Your task to perform on an android device: turn on bluetooth scan Image 0: 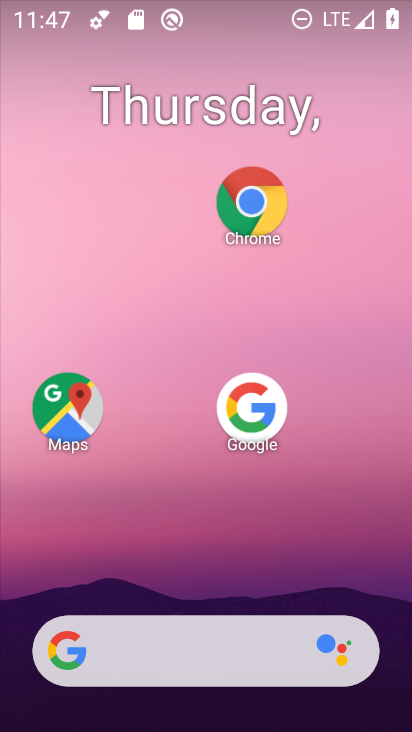
Step 0: drag from (227, 588) to (329, 48)
Your task to perform on an android device: turn on bluetooth scan Image 1: 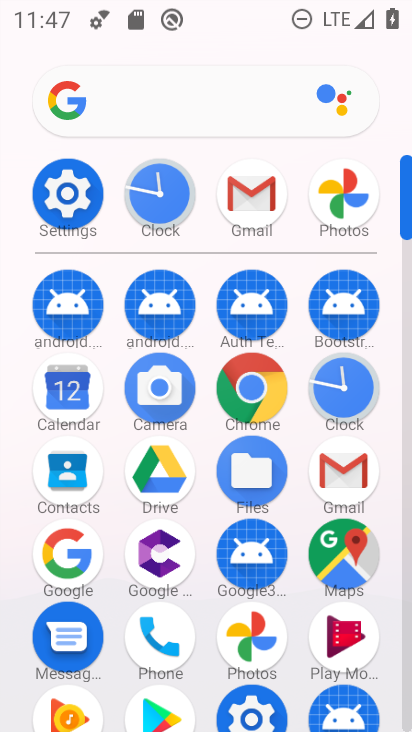
Step 1: click (55, 204)
Your task to perform on an android device: turn on bluetooth scan Image 2: 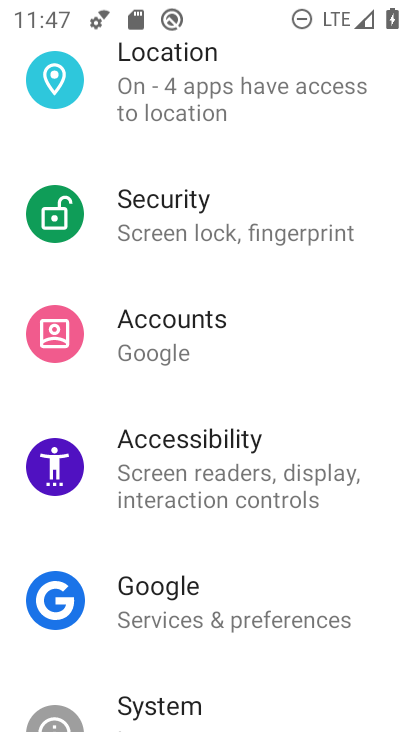
Step 2: drag from (117, 190) to (79, 665)
Your task to perform on an android device: turn on bluetooth scan Image 3: 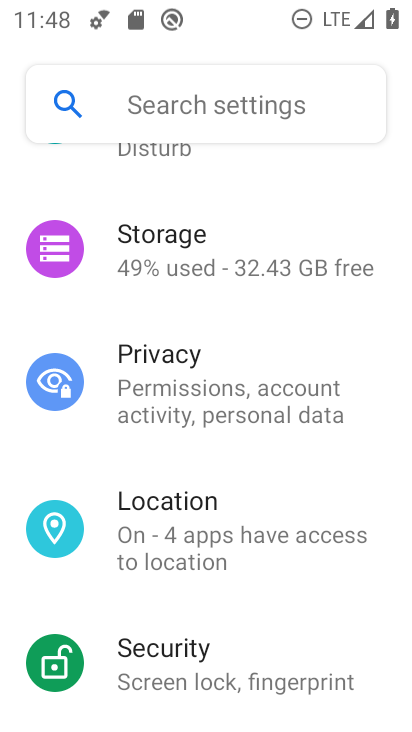
Step 3: drag from (196, 303) to (196, 730)
Your task to perform on an android device: turn on bluetooth scan Image 4: 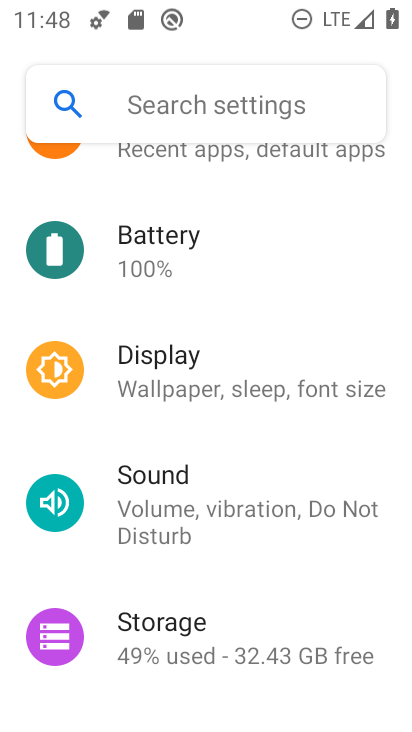
Step 4: drag from (172, 604) to (162, 99)
Your task to perform on an android device: turn on bluetooth scan Image 5: 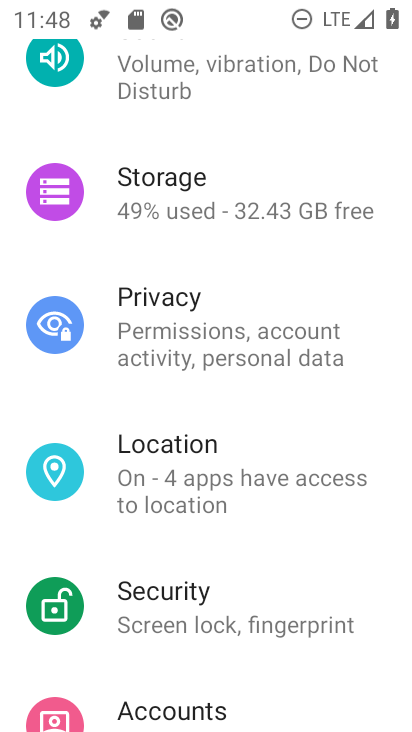
Step 5: click (199, 442)
Your task to perform on an android device: turn on bluetooth scan Image 6: 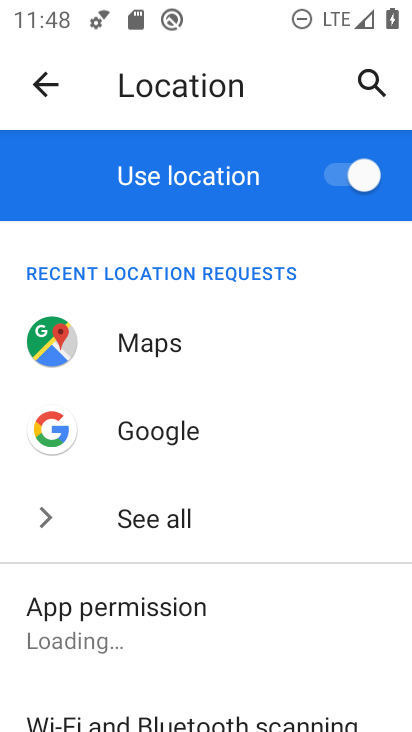
Step 6: drag from (272, 631) to (217, 259)
Your task to perform on an android device: turn on bluetooth scan Image 7: 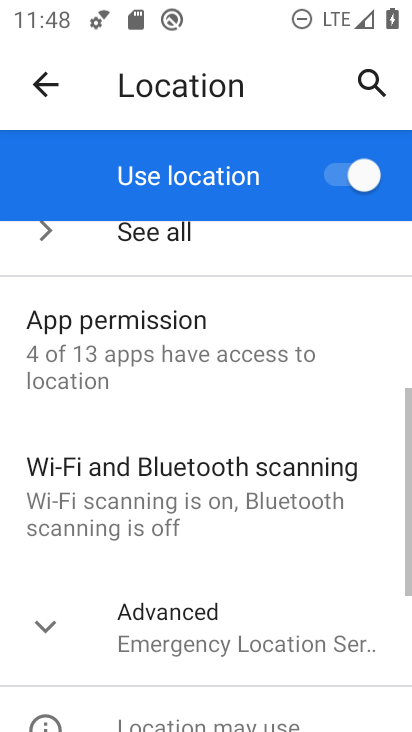
Step 7: click (181, 541)
Your task to perform on an android device: turn on bluetooth scan Image 8: 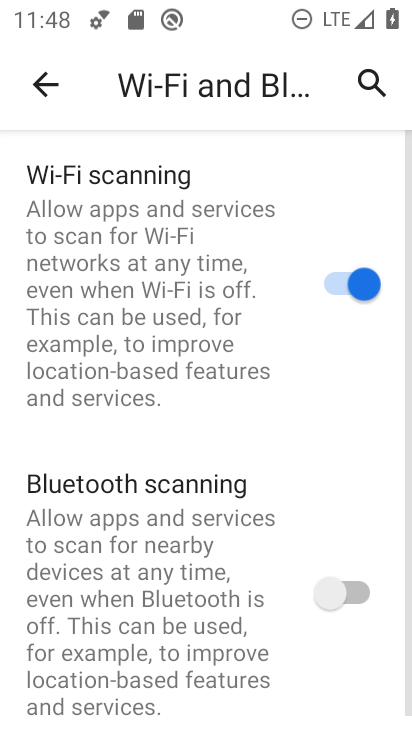
Step 8: click (349, 579)
Your task to perform on an android device: turn on bluetooth scan Image 9: 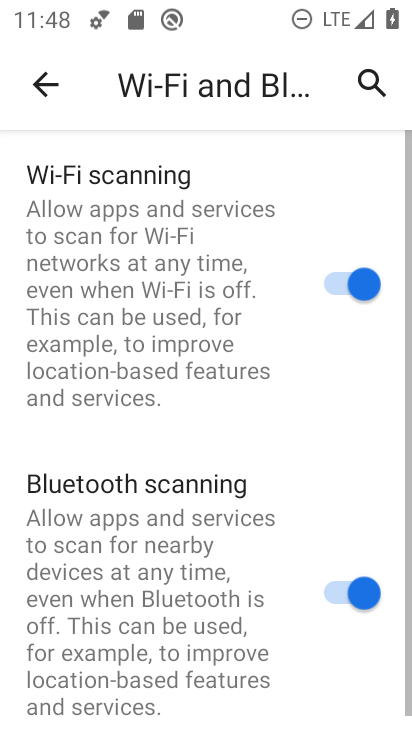
Step 9: task complete